Your task to perform on an android device: turn on showing notifications on the lock screen Image 0: 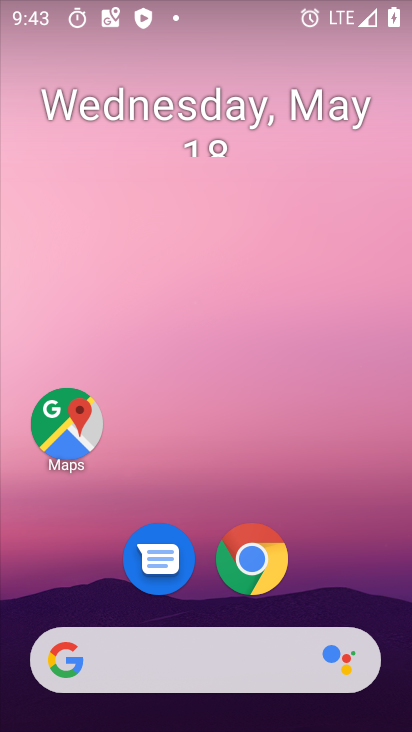
Step 0: drag from (336, 544) to (277, 12)
Your task to perform on an android device: turn on showing notifications on the lock screen Image 1: 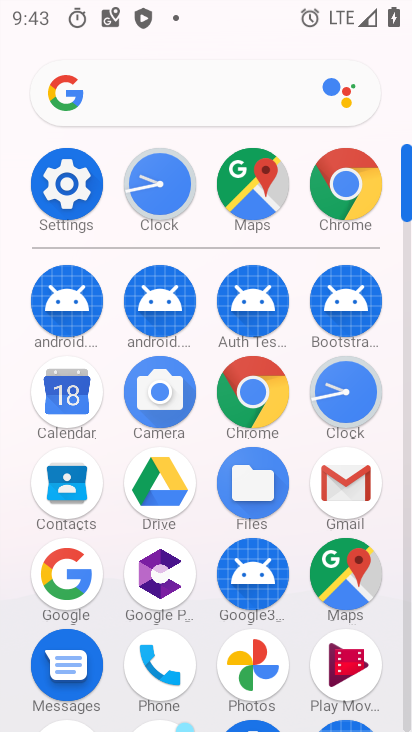
Step 1: drag from (17, 569) to (37, 240)
Your task to perform on an android device: turn on showing notifications on the lock screen Image 2: 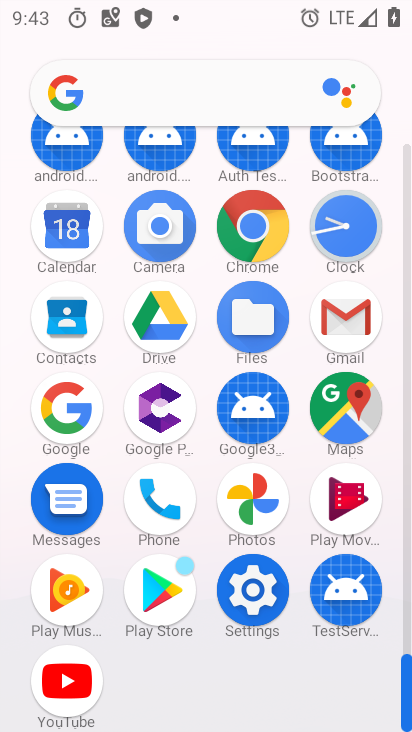
Step 2: click (252, 589)
Your task to perform on an android device: turn on showing notifications on the lock screen Image 3: 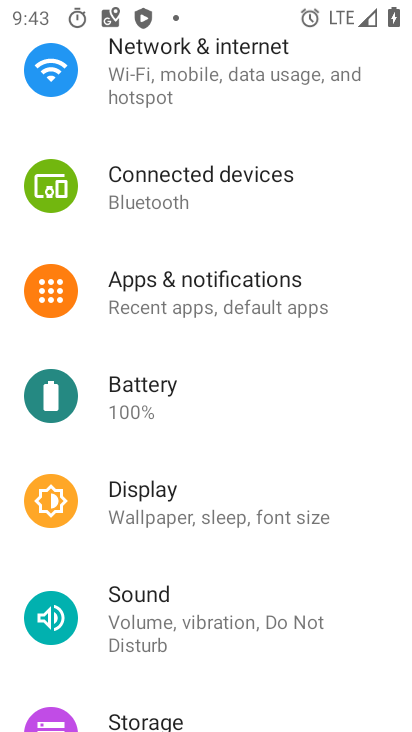
Step 3: click (227, 286)
Your task to perform on an android device: turn on showing notifications on the lock screen Image 4: 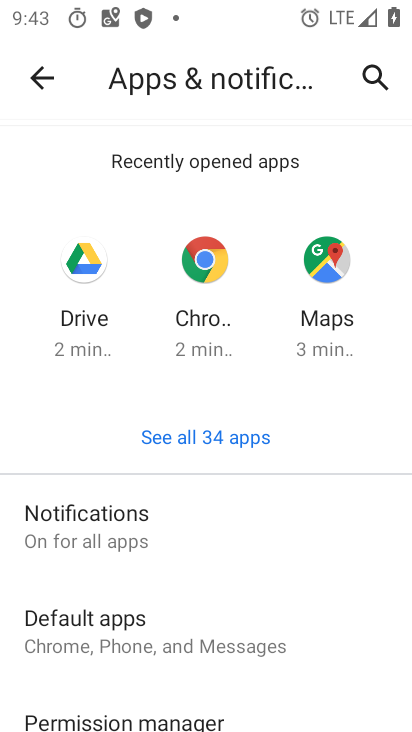
Step 4: drag from (249, 514) to (244, 217)
Your task to perform on an android device: turn on showing notifications on the lock screen Image 5: 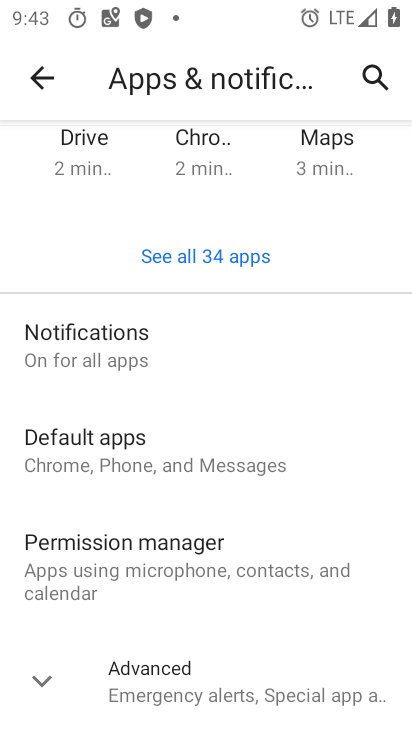
Step 5: click (109, 358)
Your task to perform on an android device: turn on showing notifications on the lock screen Image 6: 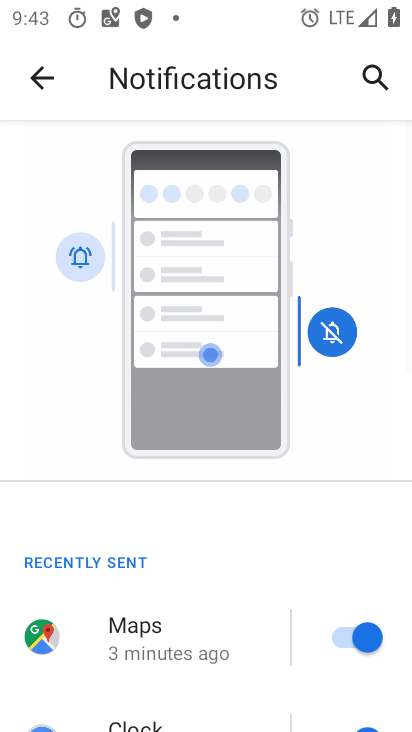
Step 6: drag from (200, 612) to (223, 136)
Your task to perform on an android device: turn on showing notifications on the lock screen Image 7: 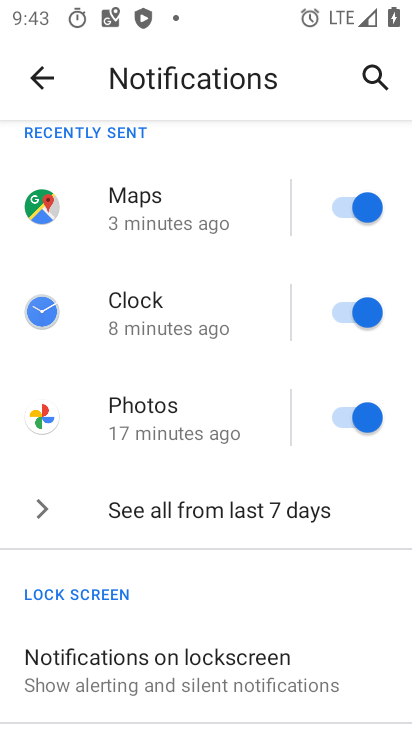
Step 7: drag from (203, 531) to (210, 206)
Your task to perform on an android device: turn on showing notifications on the lock screen Image 8: 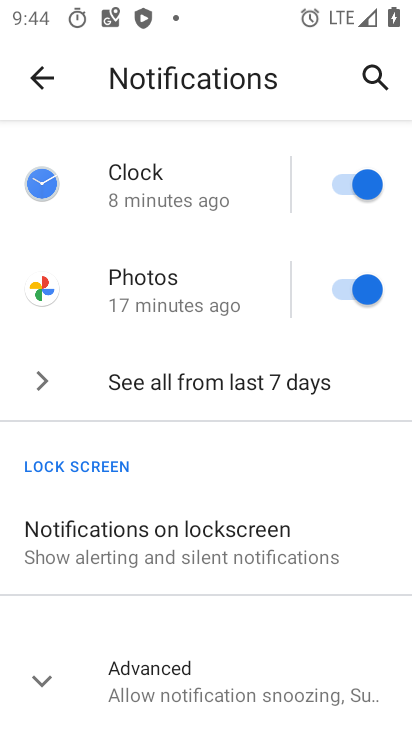
Step 8: click (29, 673)
Your task to perform on an android device: turn on showing notifications on the lock screen Image 9: 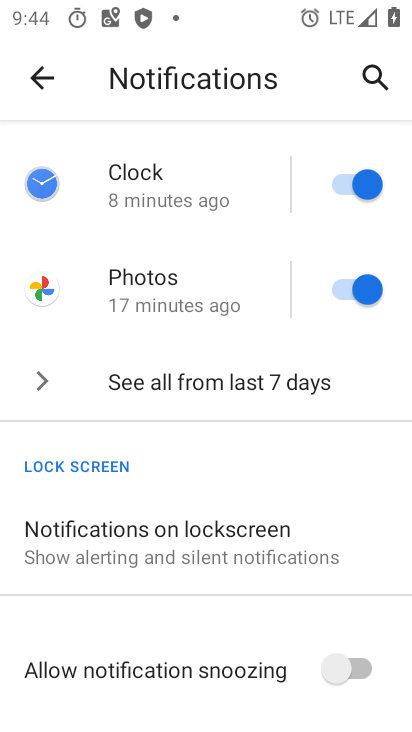
Step 9: drag from (186, 564) to (238, 245)
Your task to perform on an android device: turn on showing notifications on the lock screen Image 10: 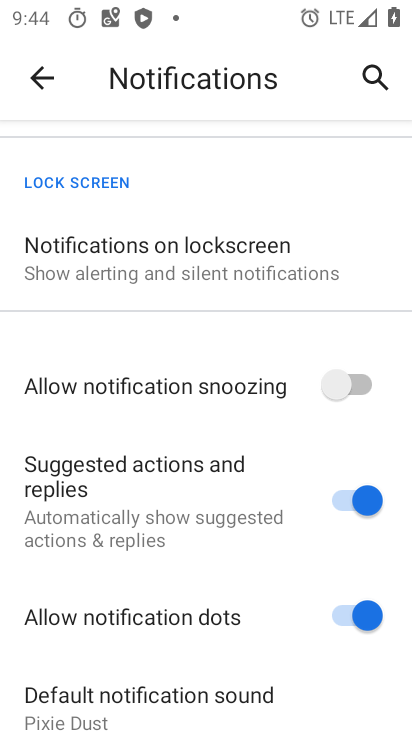
Step 10: click (238, 245)
Your task to perform on an android device: turn on showing notifications on the lock screen Image 11: 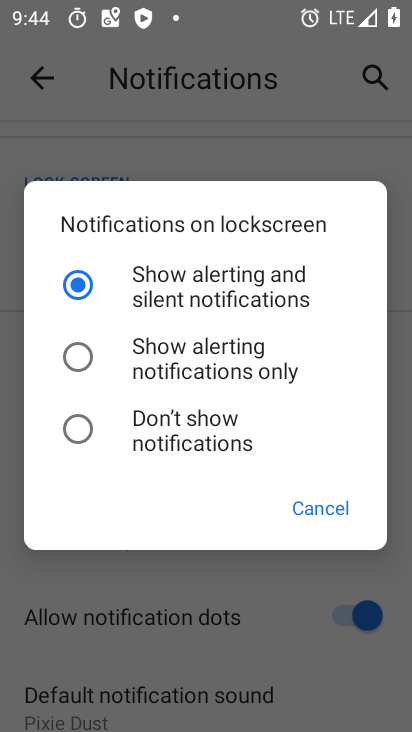
Step 11: click (213, 272)
Your task to perform on an android device: turn on showing notifications on the lock screen Image 12: 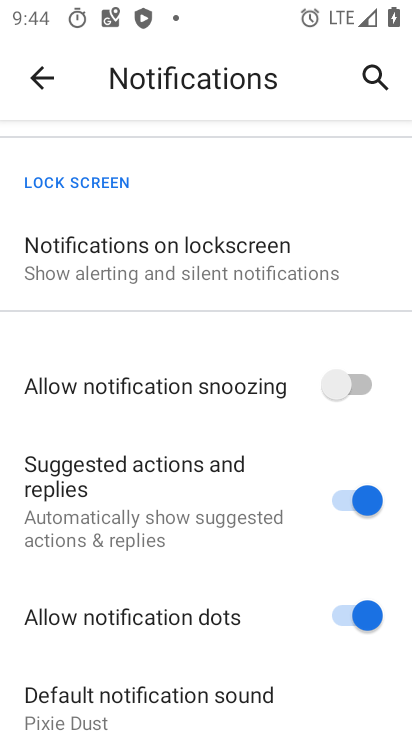
Step 12: task complete